Your task to perform on an android device: Open location settings Image 0: 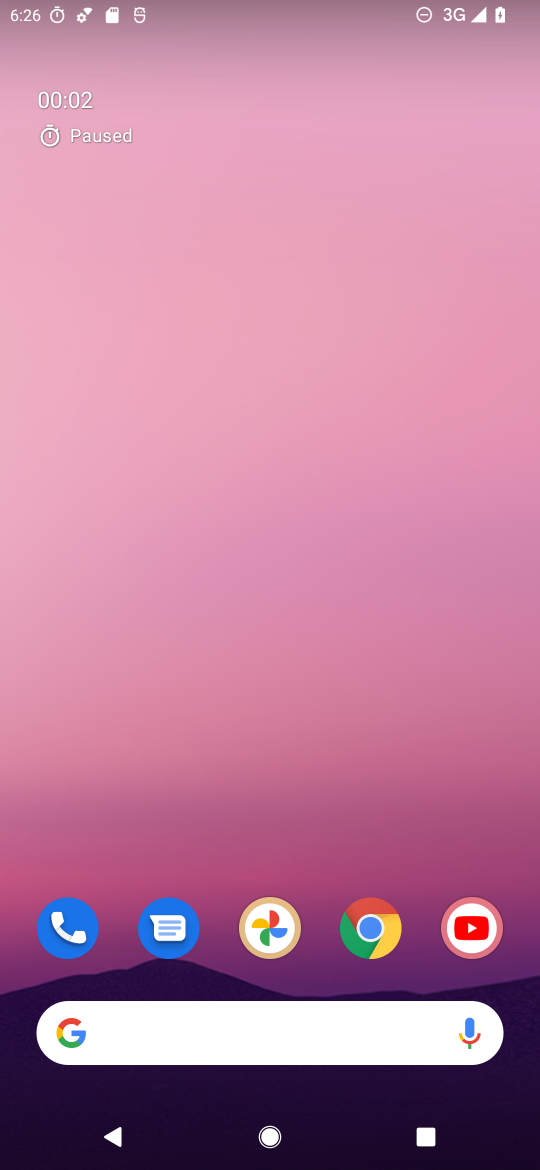
Step 0: drag from (326, 811) to (369, 100)
Your task to perform on an android device: Open location settings Image 1: 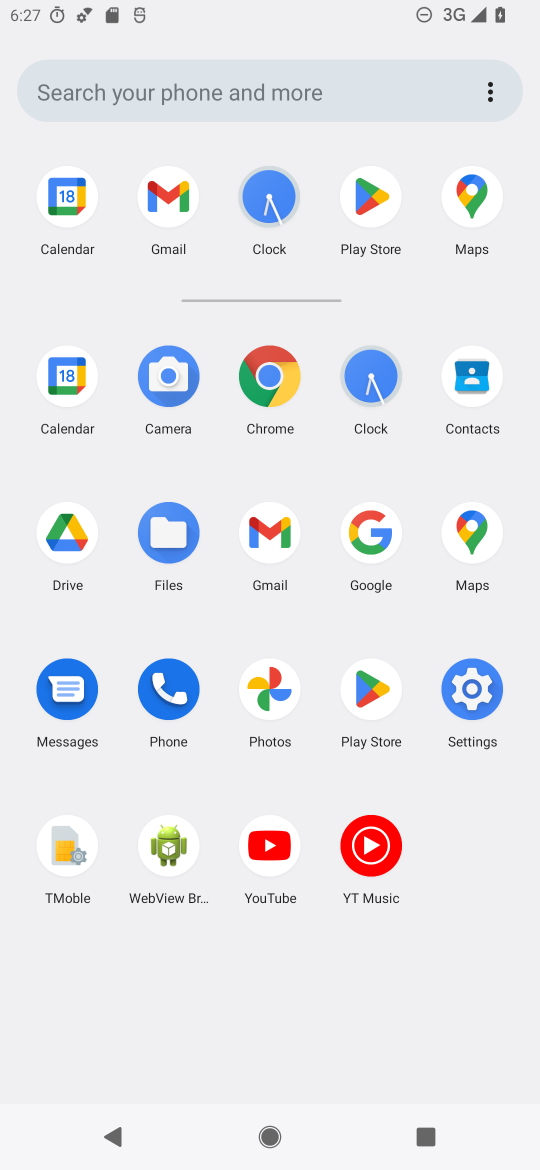
Step 1: click (476, 669)
Your task to perform on an android device: Open location settings Image 2: 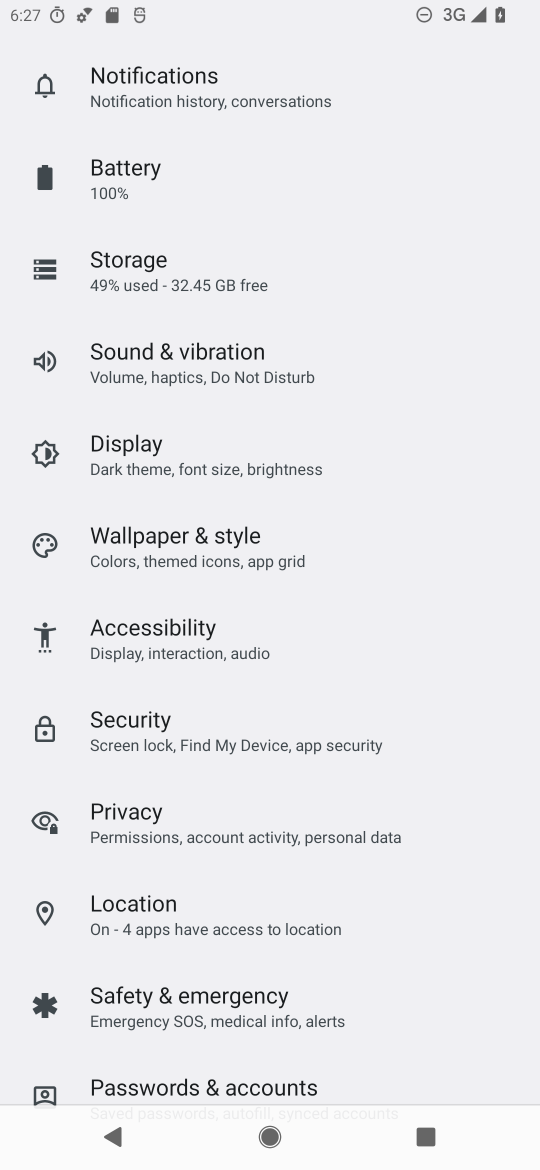
Step 2: click (150, 908)
Your task to perform on an android device: Open location settings Image 3: 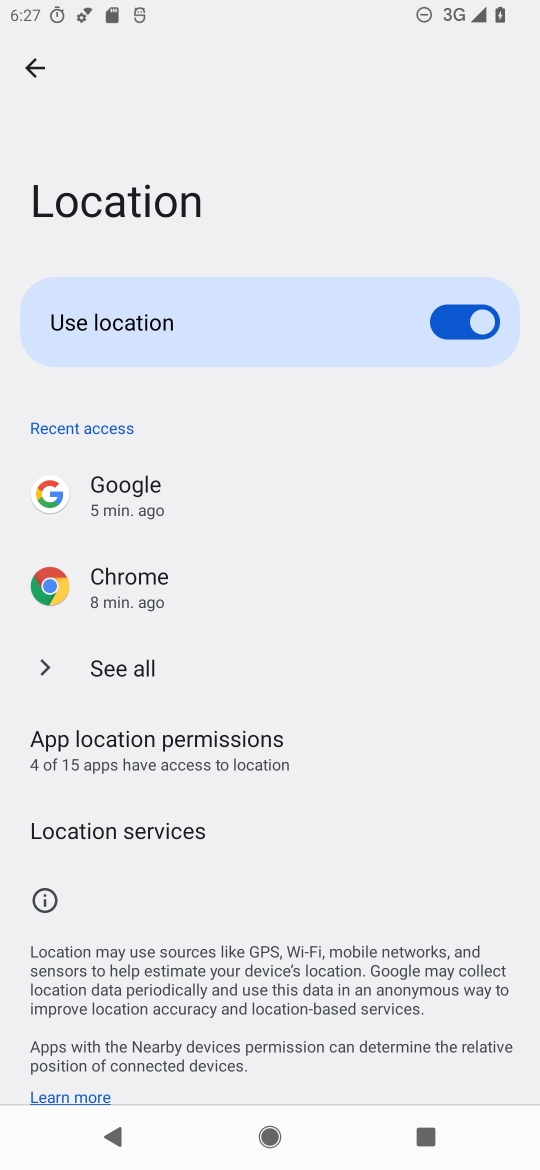
Step 3: task complete